Your task to perform on an android device: Go to Yahoo.com Image 0: 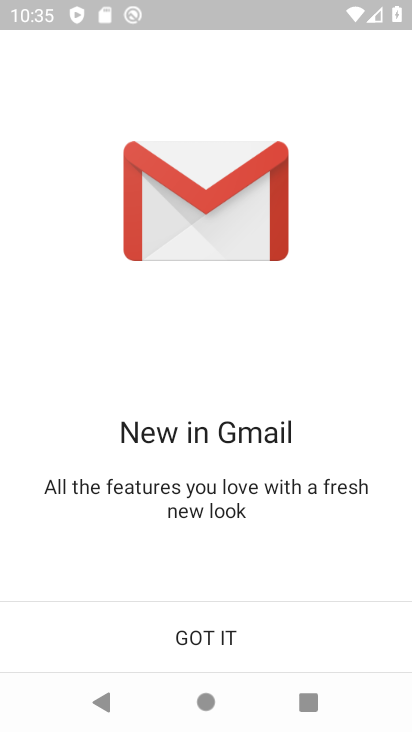
Step 0: press home button
Your task to perform on an android device: Go to Yahoo.com Image 1: 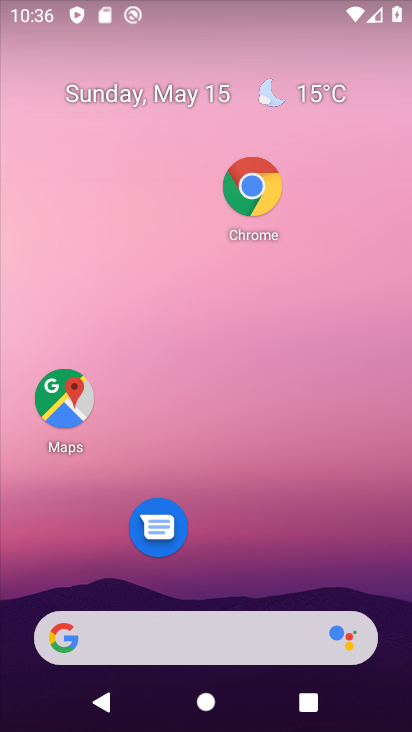
Step 1: click (247, 178)
Your task to perform on an android device: Go to Yahoo.com Image 2: 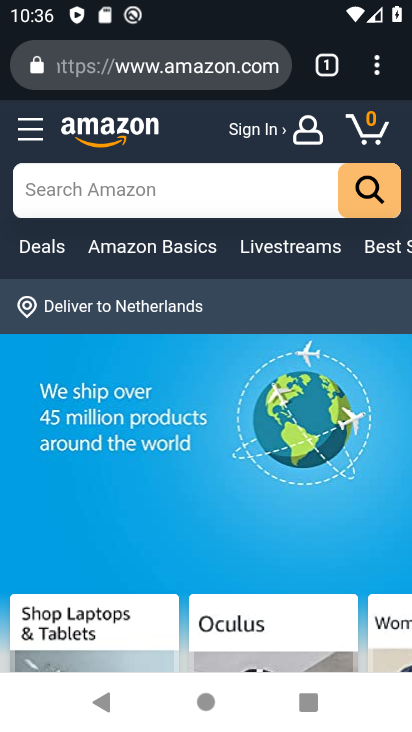
Step 2: press back button
Your task to perform on an android device: Go to Yahoo.com Image 3: 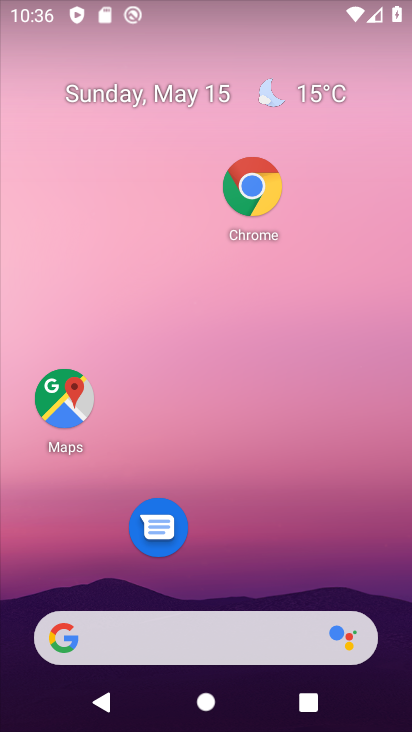
Step 3: click (250, 245)
Your task to perform on an android device: Go to Yahoo.com Image 4: 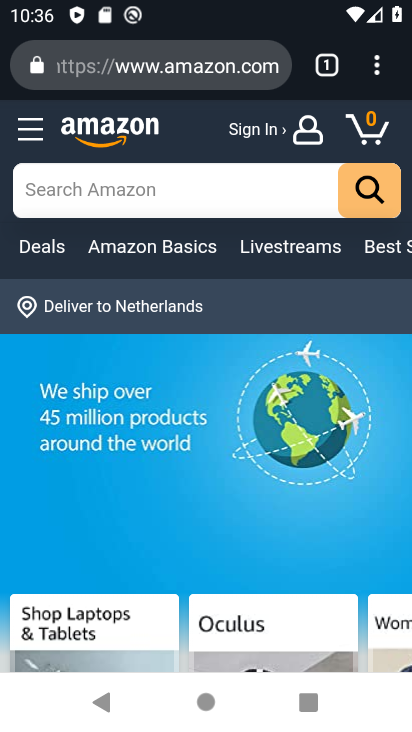
Step 4: click (226, 58)
Your task to perform on an android device: Go to Yahoo.com Image 5: 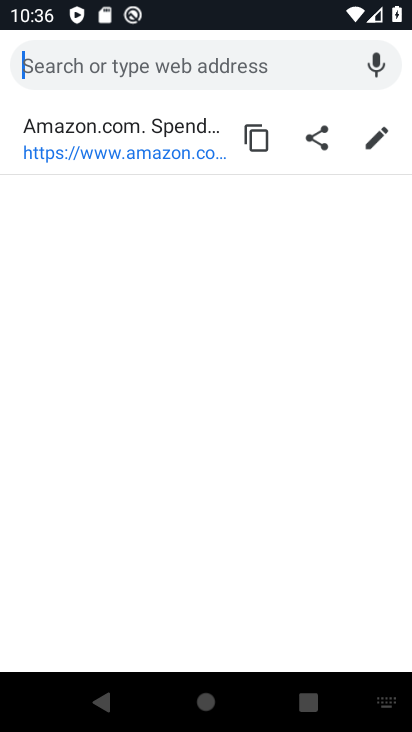
Step 5: type "www.yahoo.com"
Your task to perform on an android device: Go to Yahoo.com Image 6: 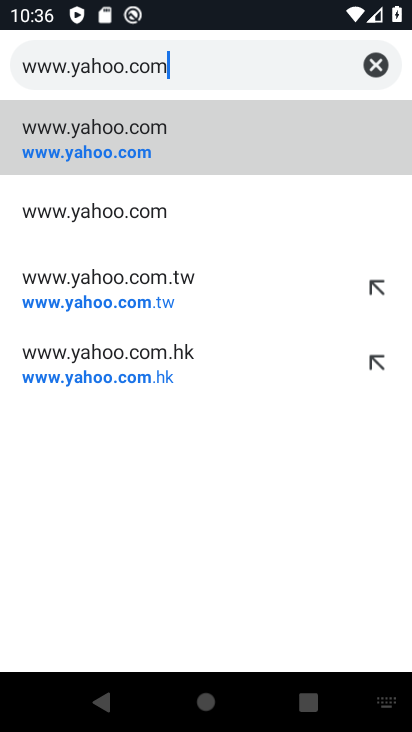
Step 6: click (129, 145)
Your task to perform on an android device: Go to Yahoo.com Image 7: 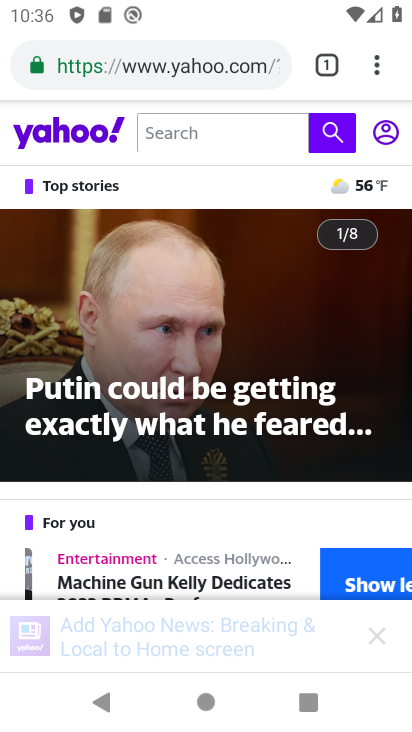
Step 7: task complete